Your task to perform on an android device: Open notification settings Image 0: 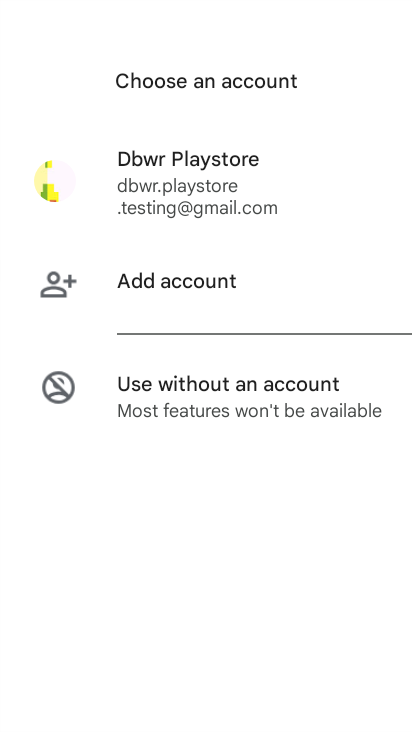
Step 0: press home button
Your task to perform on an android device: Open notification settings Image 1: 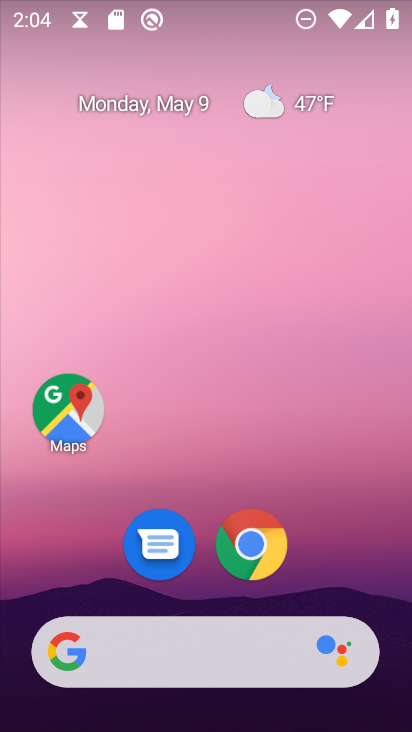
Step 1: drag from (358, 529) to (395, 81)
Your task to perform on an android device: Open notification settings Image 2: 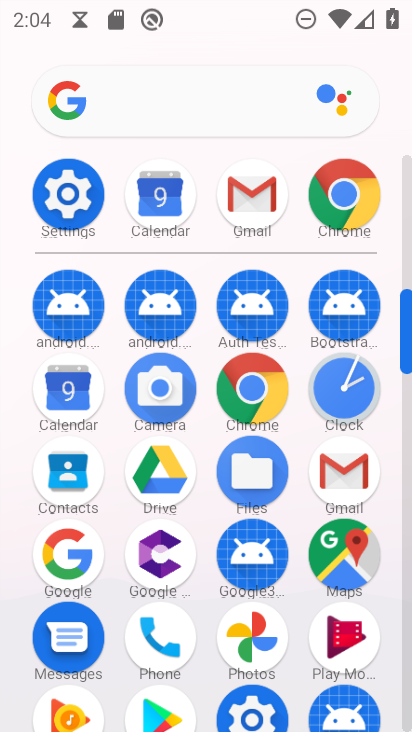
Step 2: click (73, 214)
Your task to perform on an android device: Open notification settings Image 3: 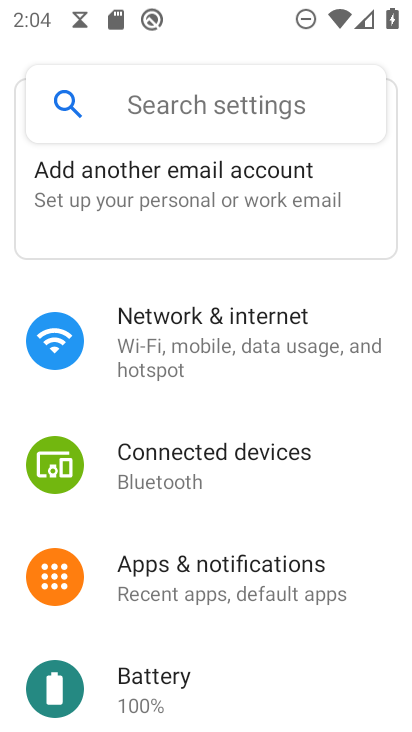
Step 3: click (297, 581)
Your task to perform on an android device: Open notification settings Image 4: 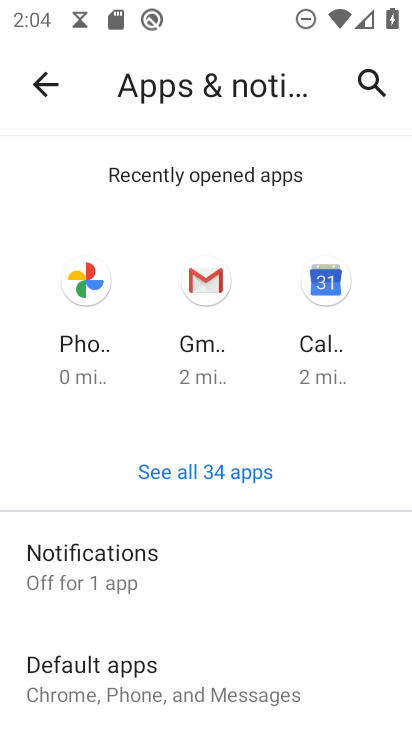
Step 4: click (86, 551)
Your task to perform on an android device: Open notification settings Image 5: 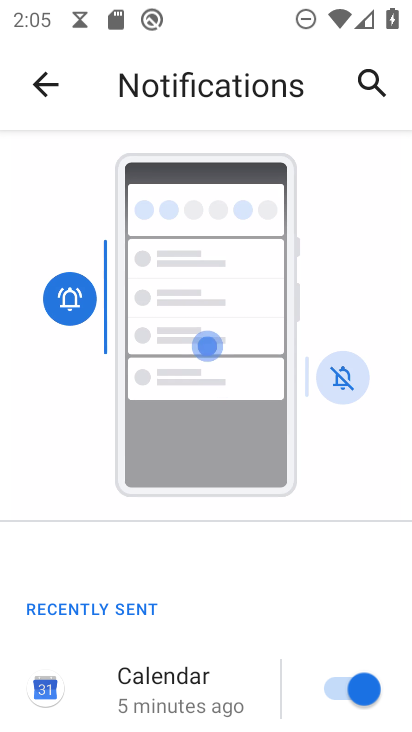
Step 5: task complete